Your task to perform on an android device: Go to location settings Image 0: 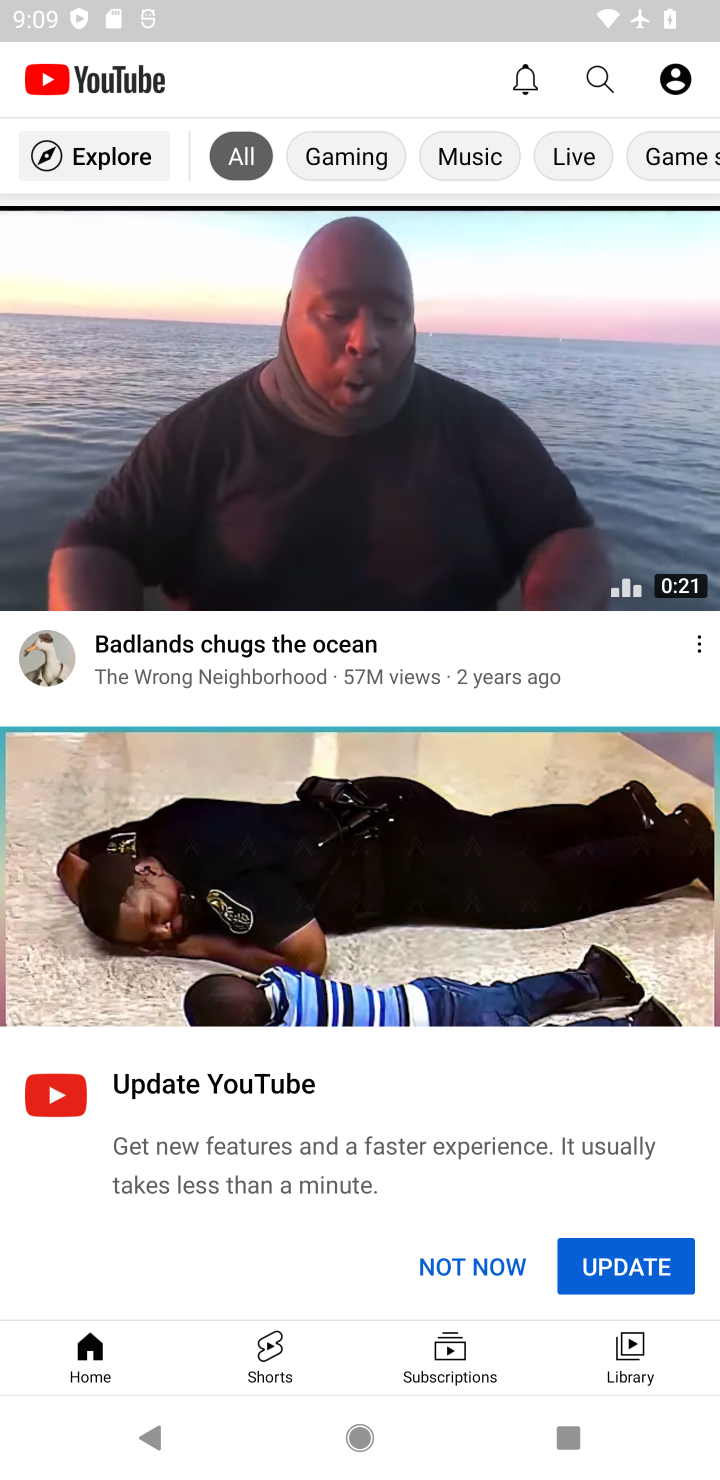
Step 0: press home button
Your task to perform on an android device: Go to location settings Image 1: 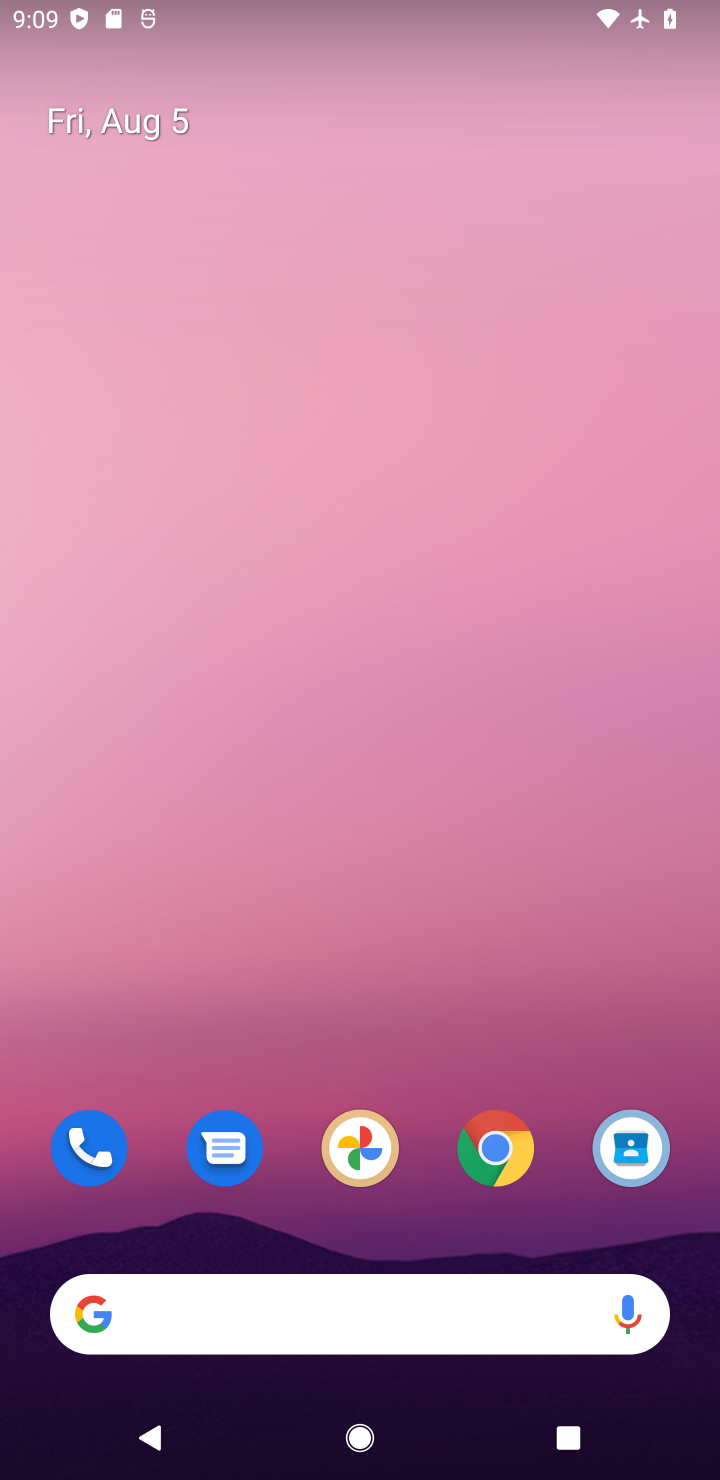
Step 1: drag from (288, 1266) to (328, 324)
Your task to perform on an android device: Go to location settings Image 2: 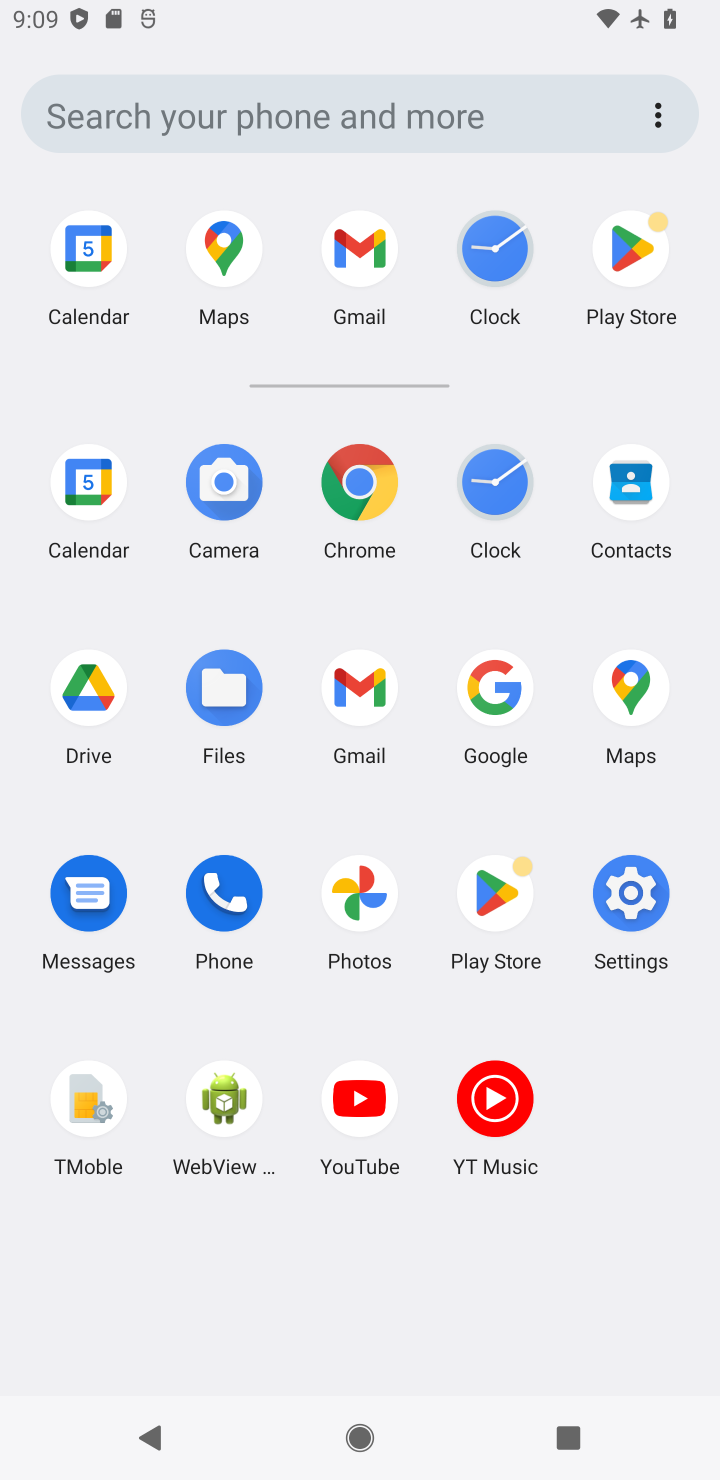
Step 2: click (630, 882)
Your task to perform on an android device: Go to location settings Image 3: 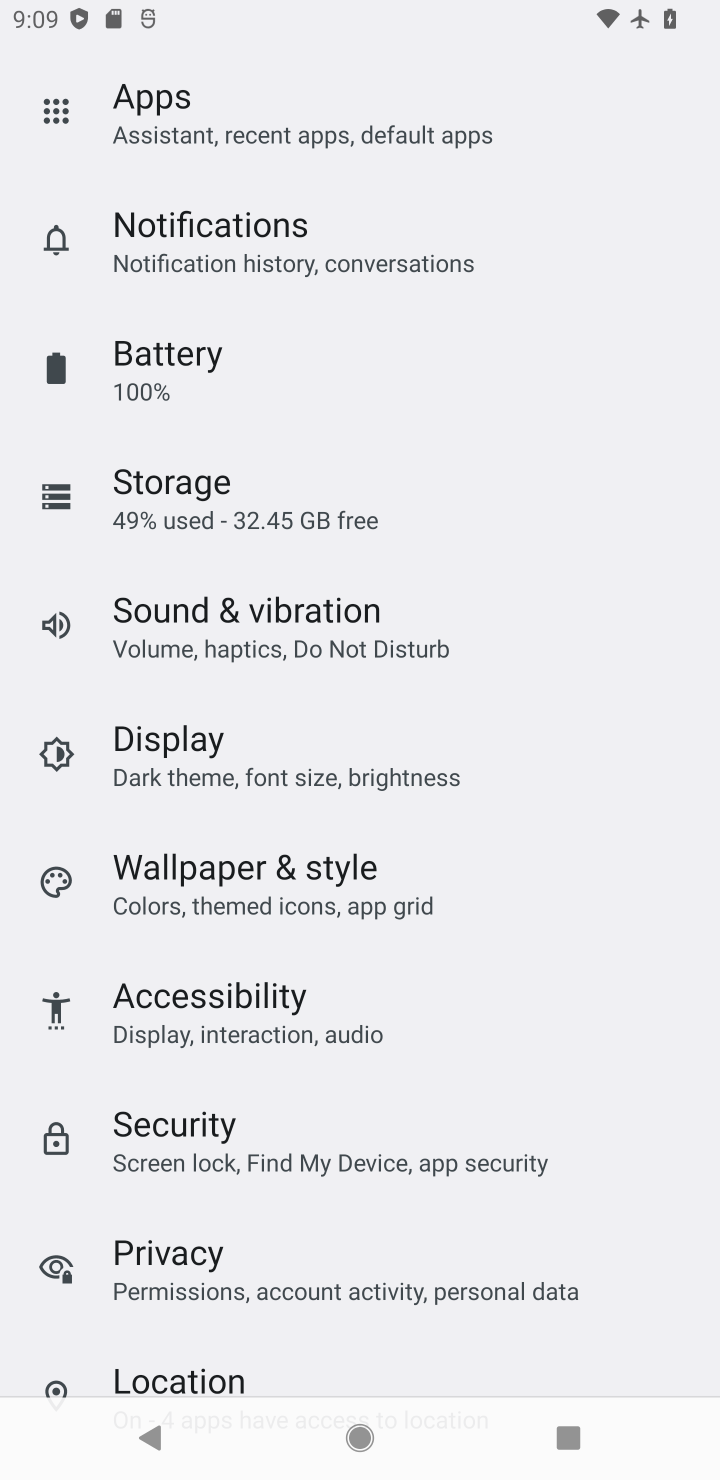
Step 3: click (350, 1342)
Your task to perform on an android device: Go to location settings Image 4: 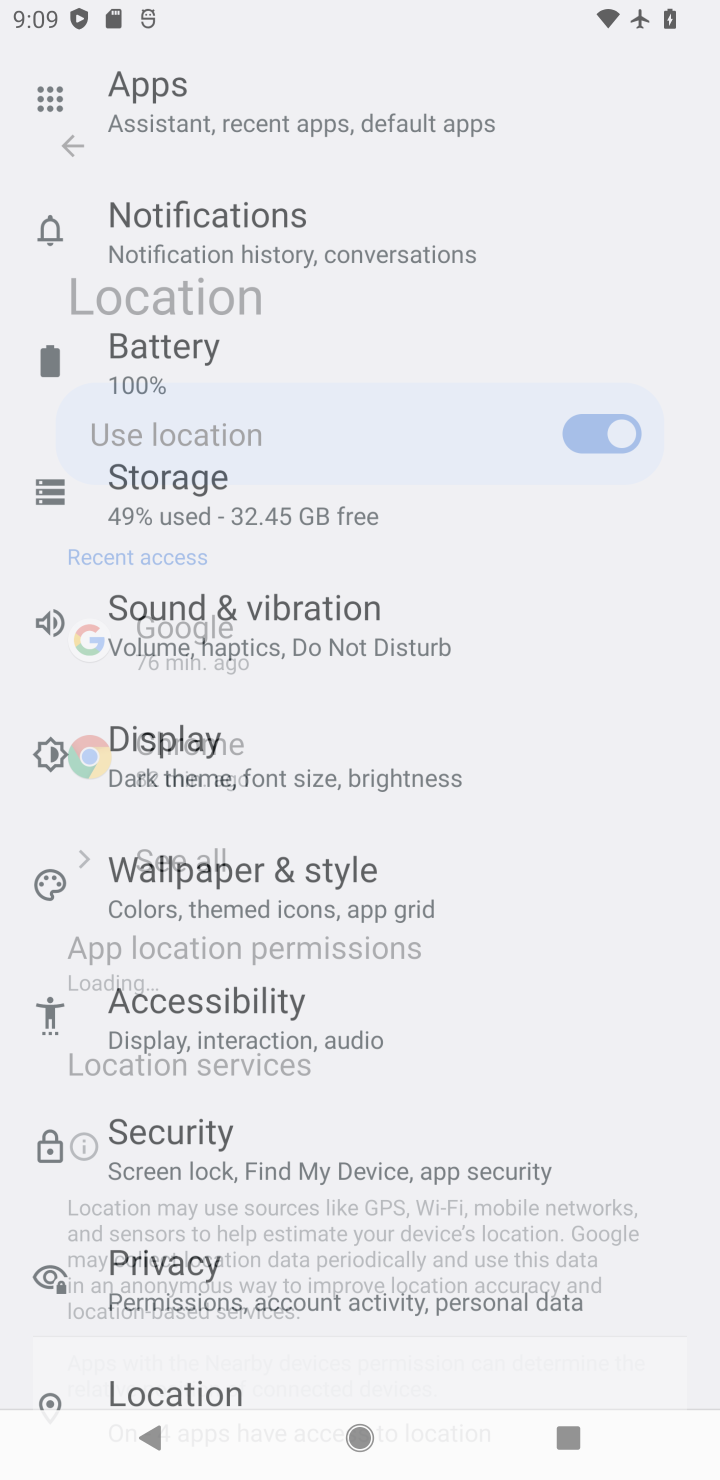
Step 4: task complete